Your task to perform on an android device: turn notification dots off Image 0: 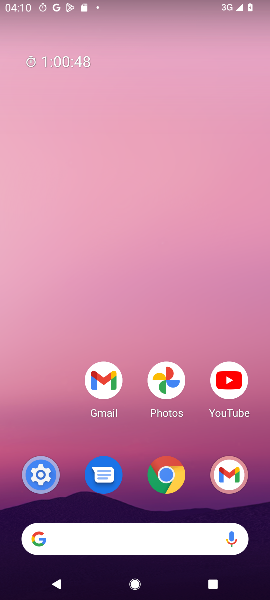
Step 0: press home button
Your task to perform on an android device: turn notification dots off Image 1: 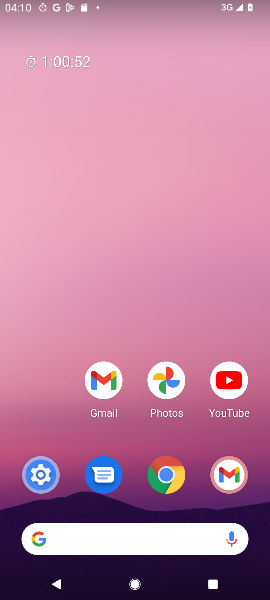
Step 1: drag from (65, 433) to (50, 211)
Your task to perform on an android device: turn notification dots off Image 2: 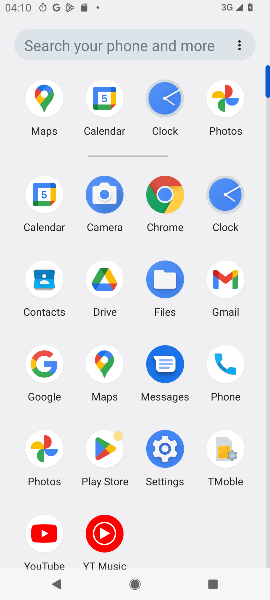
Step 2: click (169, 450)
Your task to perform on an android device: turn notification dots off Image 3: 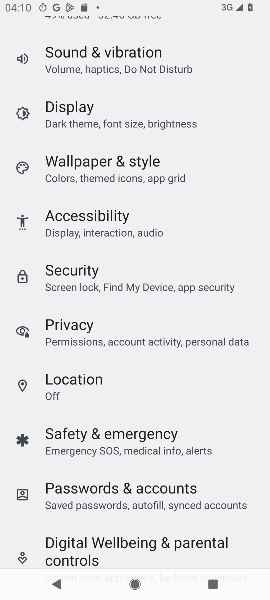
Step 3: drag from (230, 194) to (240, 286)
Your task to perform on an android device: turn notification dots off Image 4: 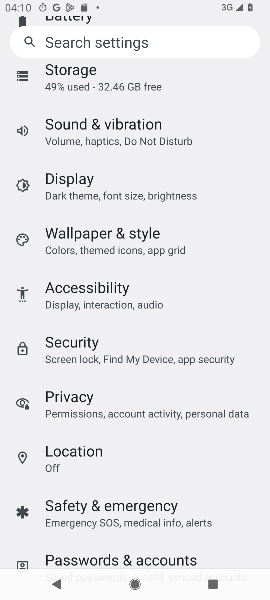
Step 4: drag from (234, 171) to (237, 268)
Your task to perform on an android device: turn notification dots off Image 5: 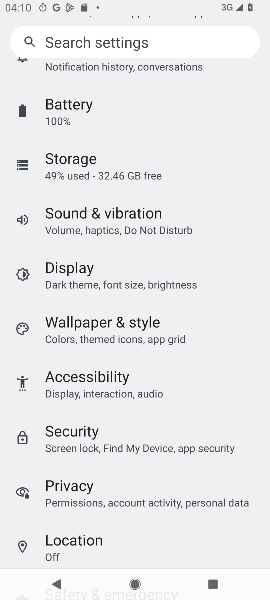
Step 5: drag from (231, 145) to (228, 252)
Your task to perform on an android device: turn notification dots off Image 6: 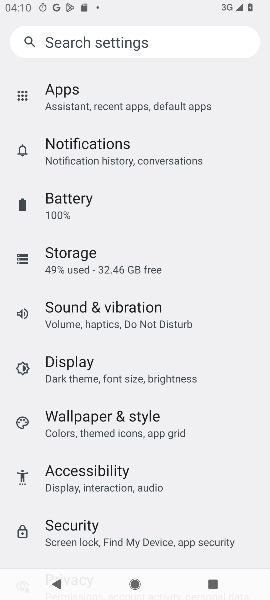
Step 6: drag from (223, 150) to (237, 244)
Your task to perform on an android device: turn notification dots off Image 7: 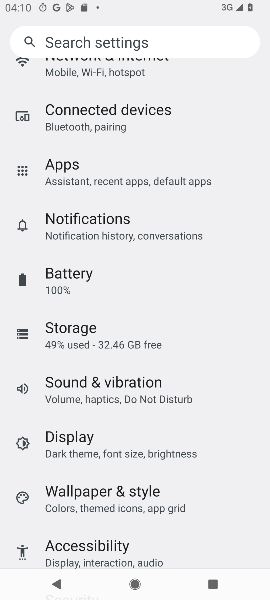
Step 7: drag from (236, 139) to (236, 230)
Your task to perform on an android device: turn notification dots off Image 8: 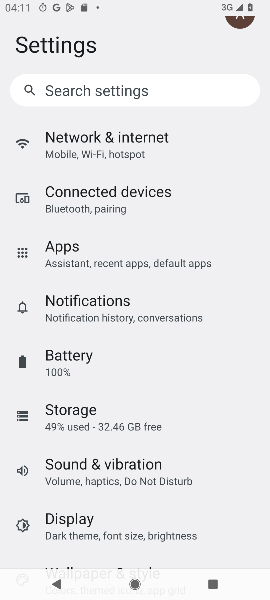
Step 8: drag from (233, 144) to (233, 292)
Your task to perform on an android device: turn notification dots off Image 9: 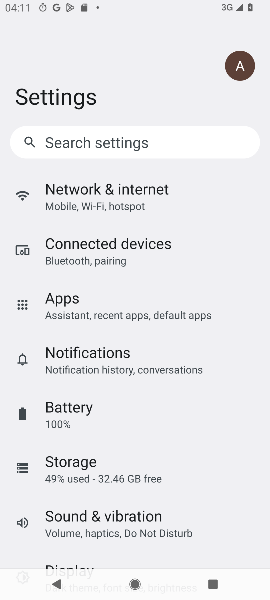
Step 9: click (160, 363)
Your task to perform on an android device: turn notification dots off Image 10: 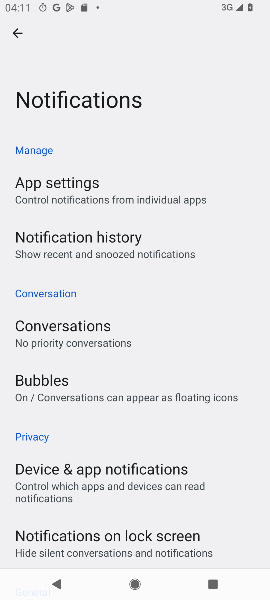
Step 10: task complete